Your task to perform on an android device: find which apps use the phone's location Image 0: 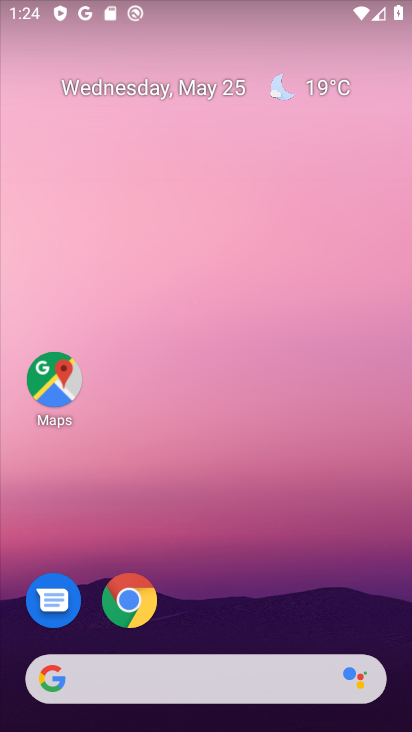
Step 0: drag from (211, 571) to (222, 284)
Your task to perform on an android device: find which apps use the phone's location Image 1: 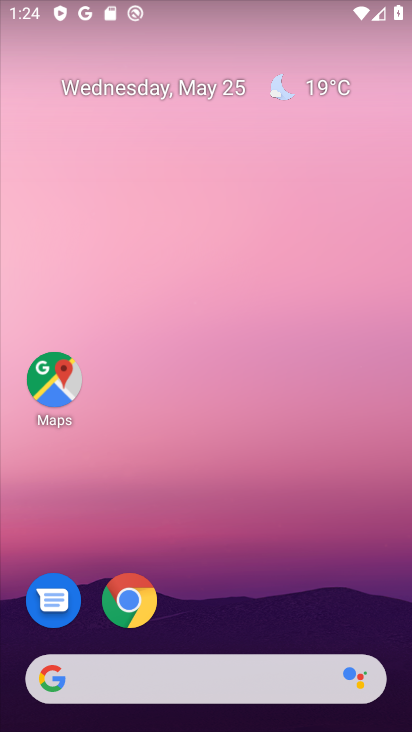
Step 1: drag from (212, 621) to (262, 266)
Your task to perform on an android device: find which apps use the phone's location Image 2: 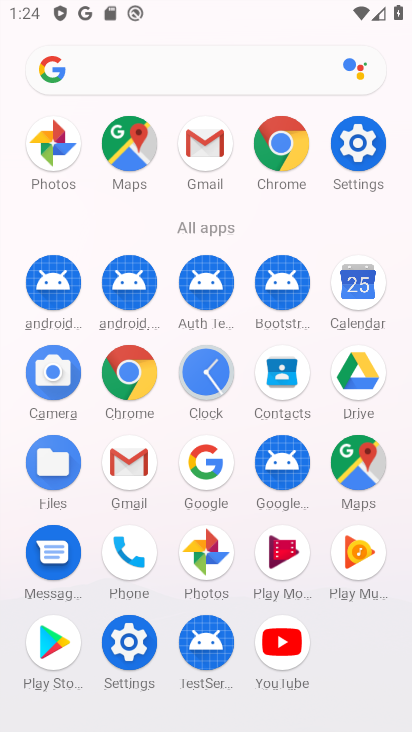
Step 2: drag from (211, 631) to (247, 473)
Your task to perform on an android device: find which apps use the phone's location Image 3: 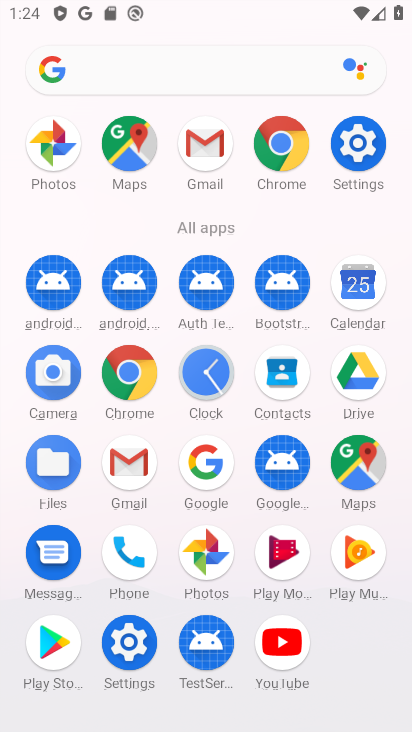
Step 3: click (130, 651)
Your task to perform on an android device: find which apps use the phone's location Image 4: 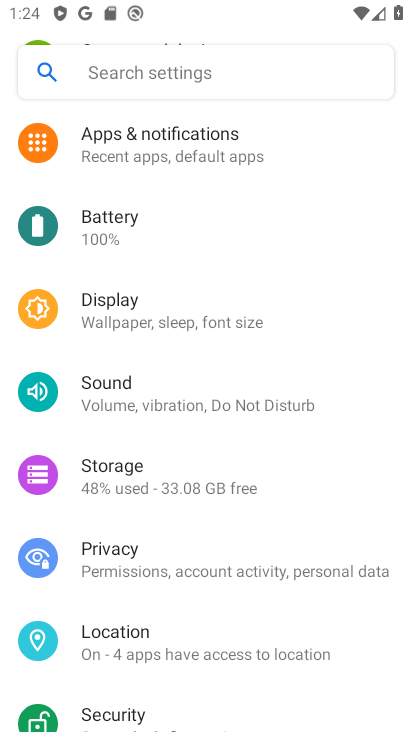
Step 4: click (134, 657)
Your task to perform on an android device: find which apps use the phone's location Image 5: 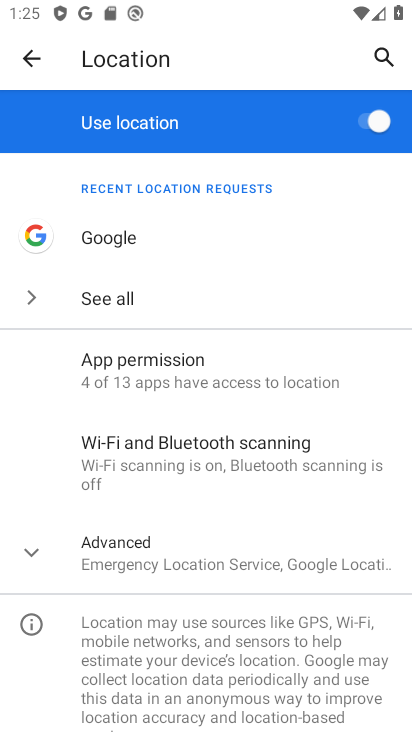
Step 5: click (154, 375)
Your task to perform on an android device: find which apps use the phone's location Image 6: 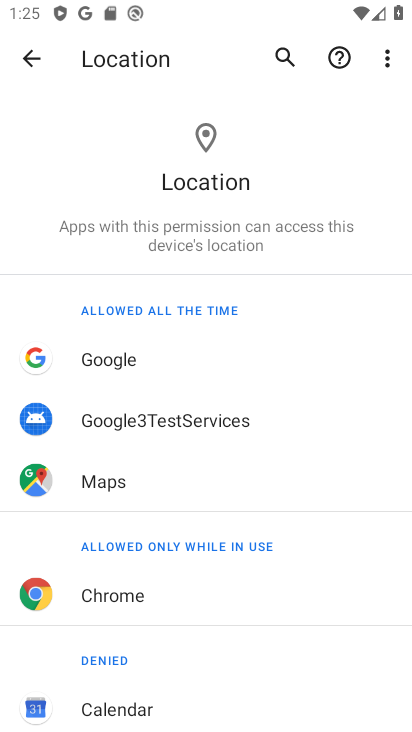
Step 6: task complete